Your task to perform on an android device: Go to eBay Image 0: 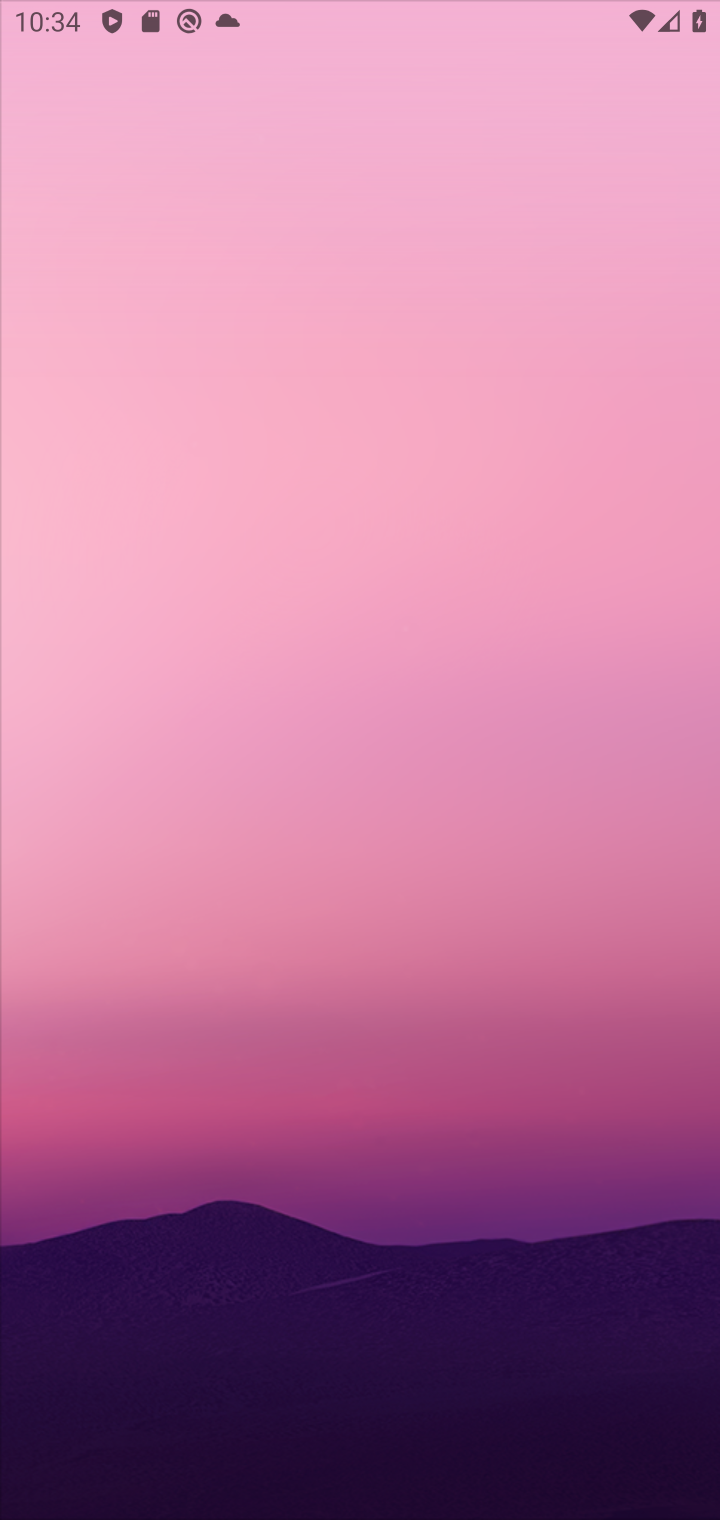
Step 0: press home button
Your task to perform on an android device: Go to eBay Image 1: 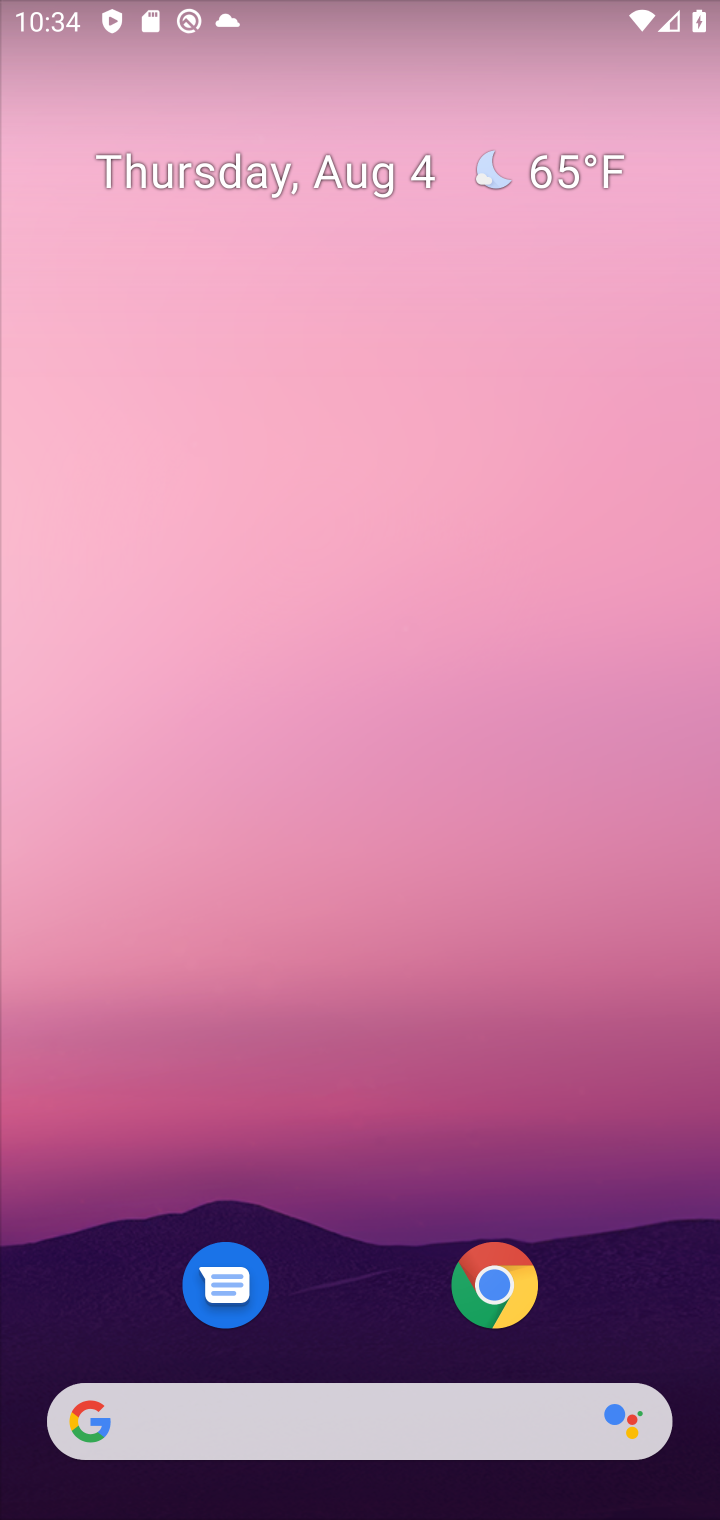
Step 1: drag from (265, 17) to (170, 1470)
Your task to perform on an android device: Go to eBay Image 2: 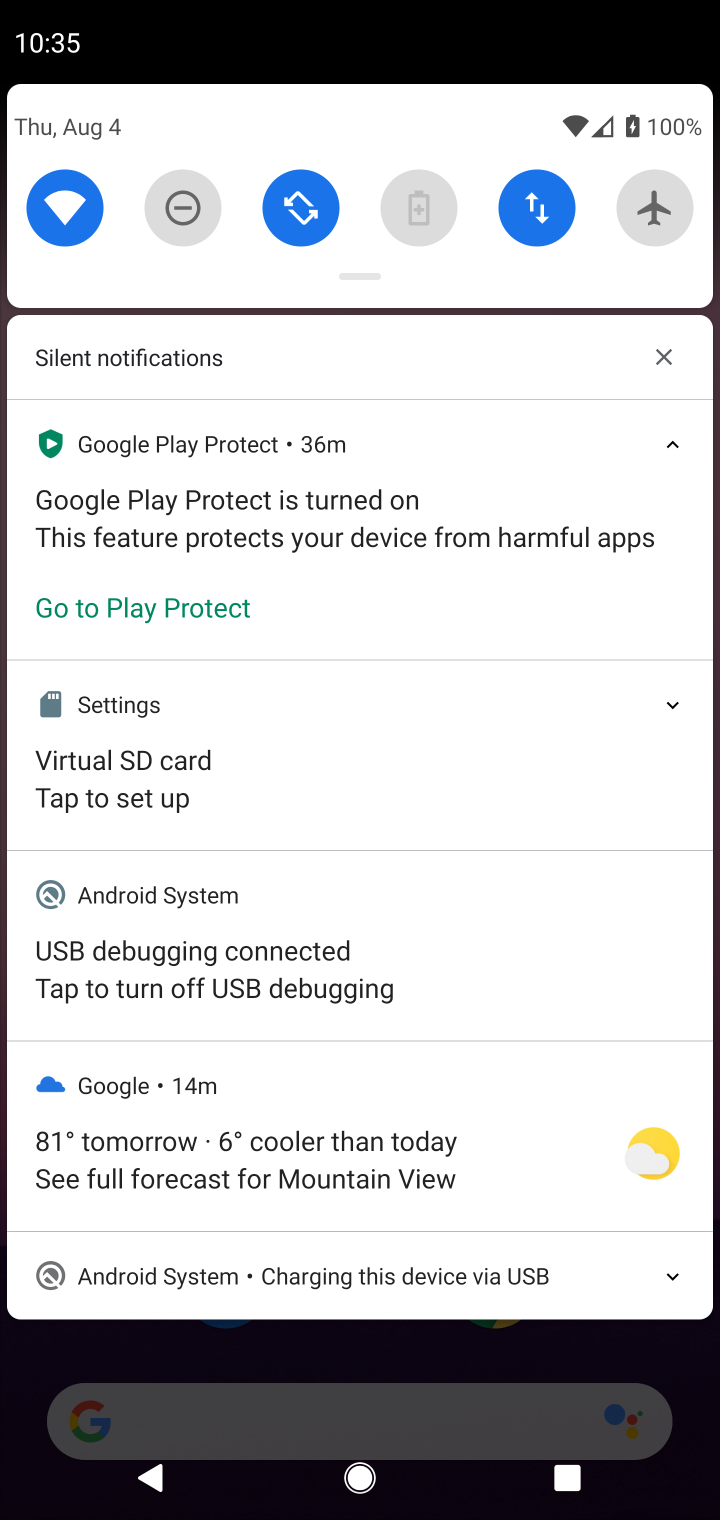
Step 2: click (583, 1313)
Your task to perform on an android device: Go to eBay Image 3: 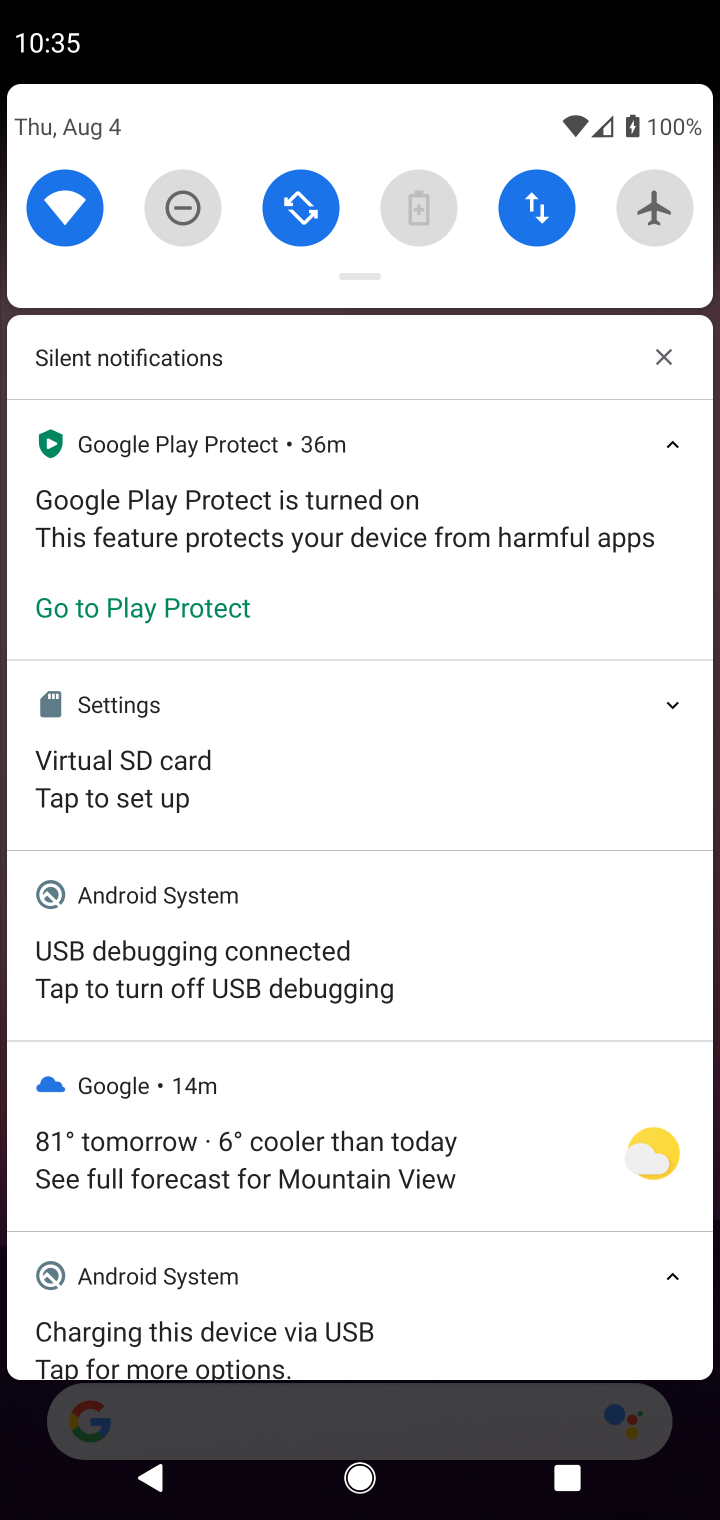
Step 3: click (662, 1397)
Your task to perform on an android device: Go to eBay Image 4: 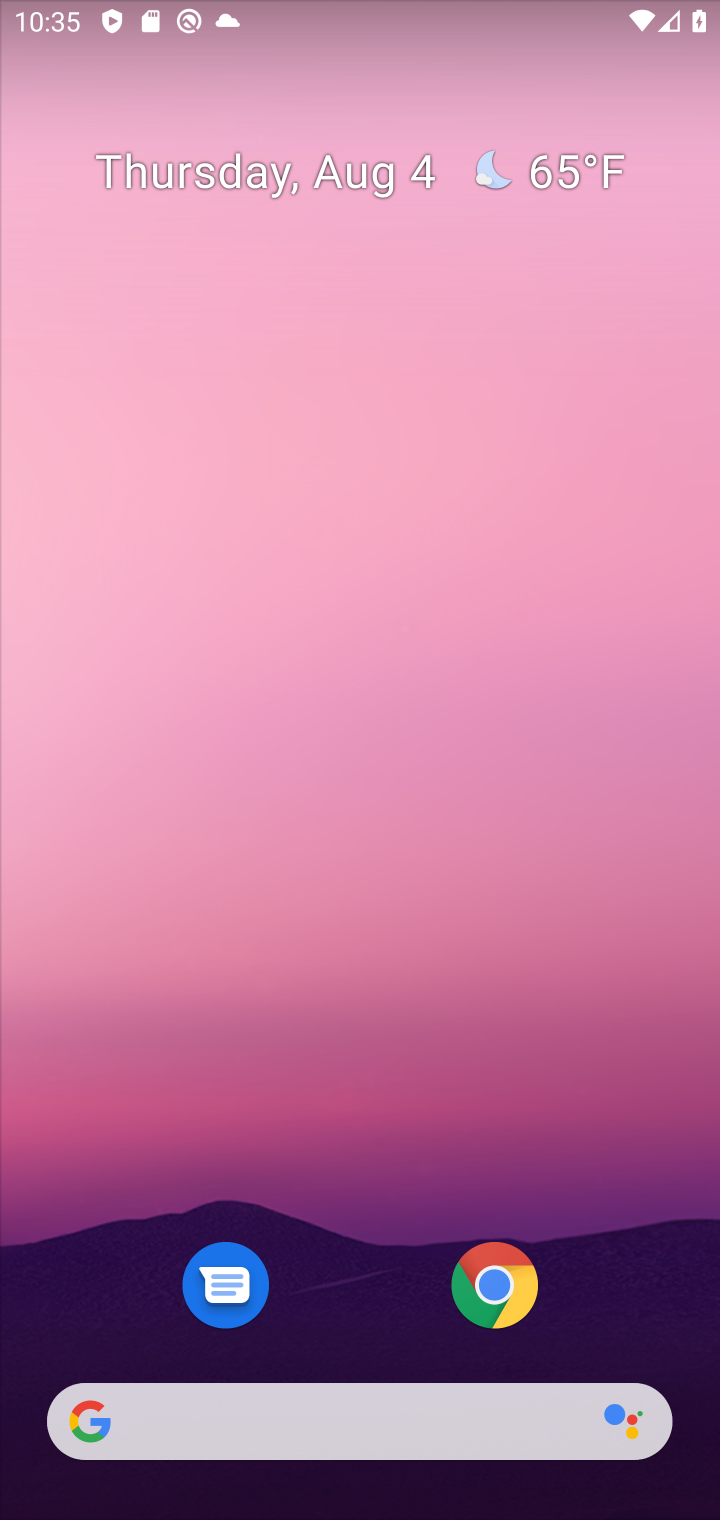
Step 4: drag from (353, 1307) to (438, 35)
Your task to perform on an android device: Go to eBay Image 5: 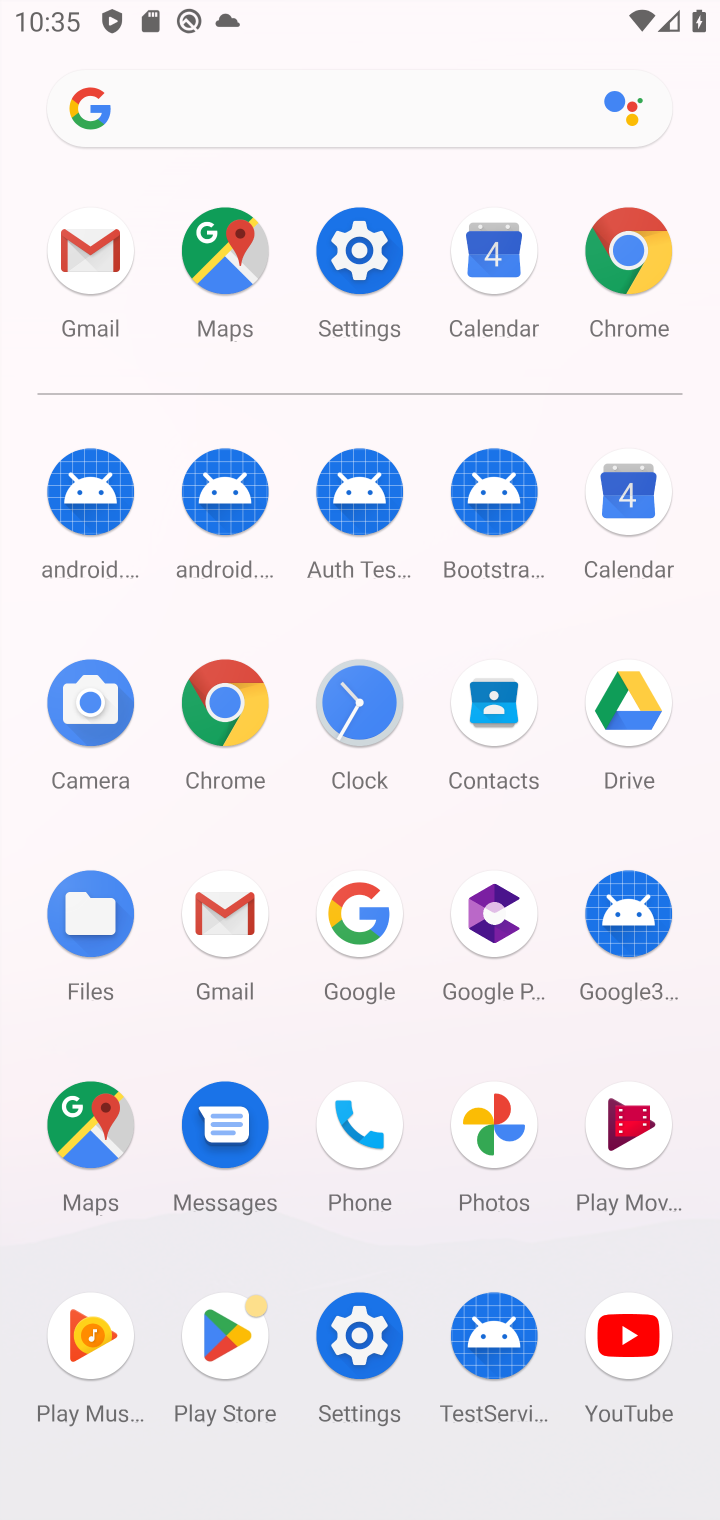
Step 5: click (223, 684)
Your task to perform on an android device: Go to eBay Image 6: 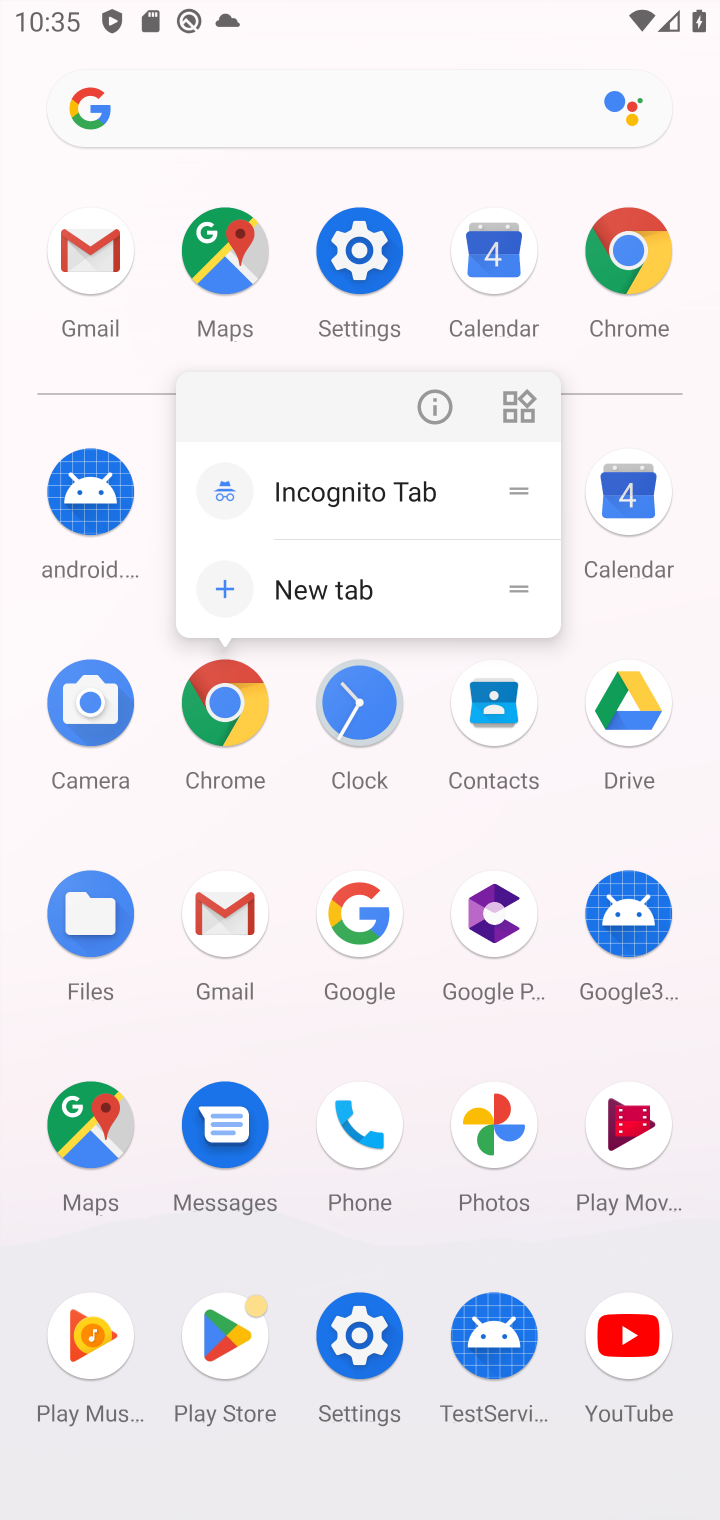
Step 6: click (633, 256)
Your task to perform on an android device: Go to eBay Image 7: 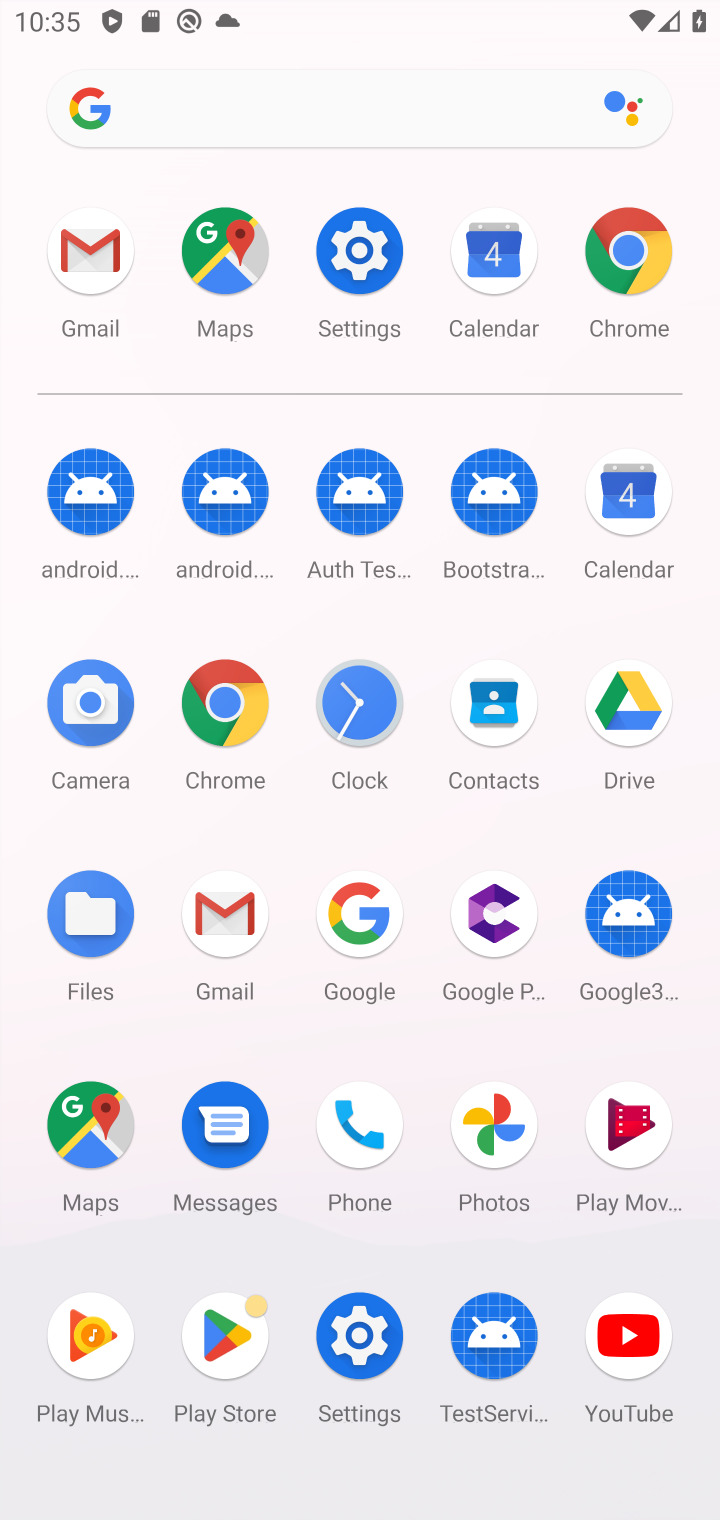
Step 7: click (637, 233)
Your task to perform on an android device: Go to eBay Image 8: 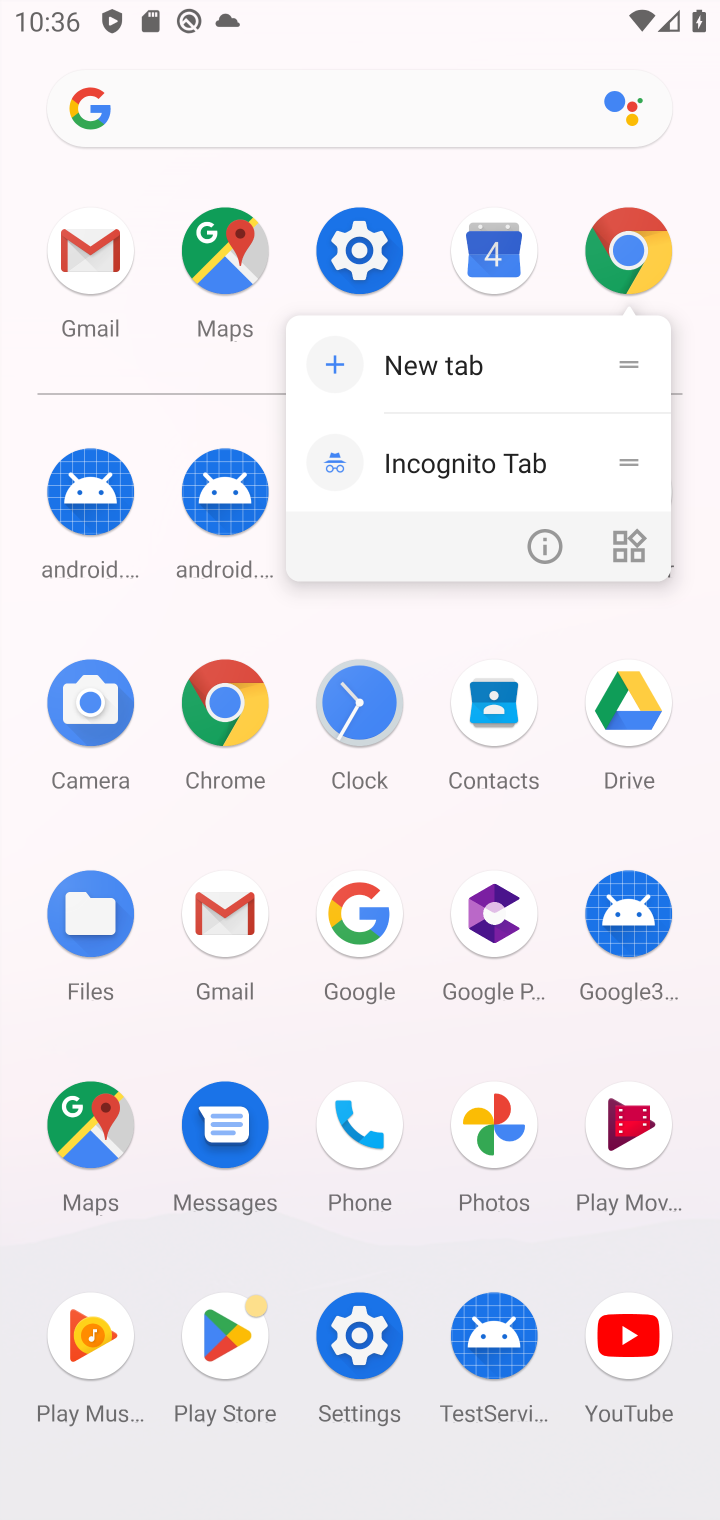
Step 8: click (630, 227)
Your task to perform on an android device: Go to eBay Image 9: 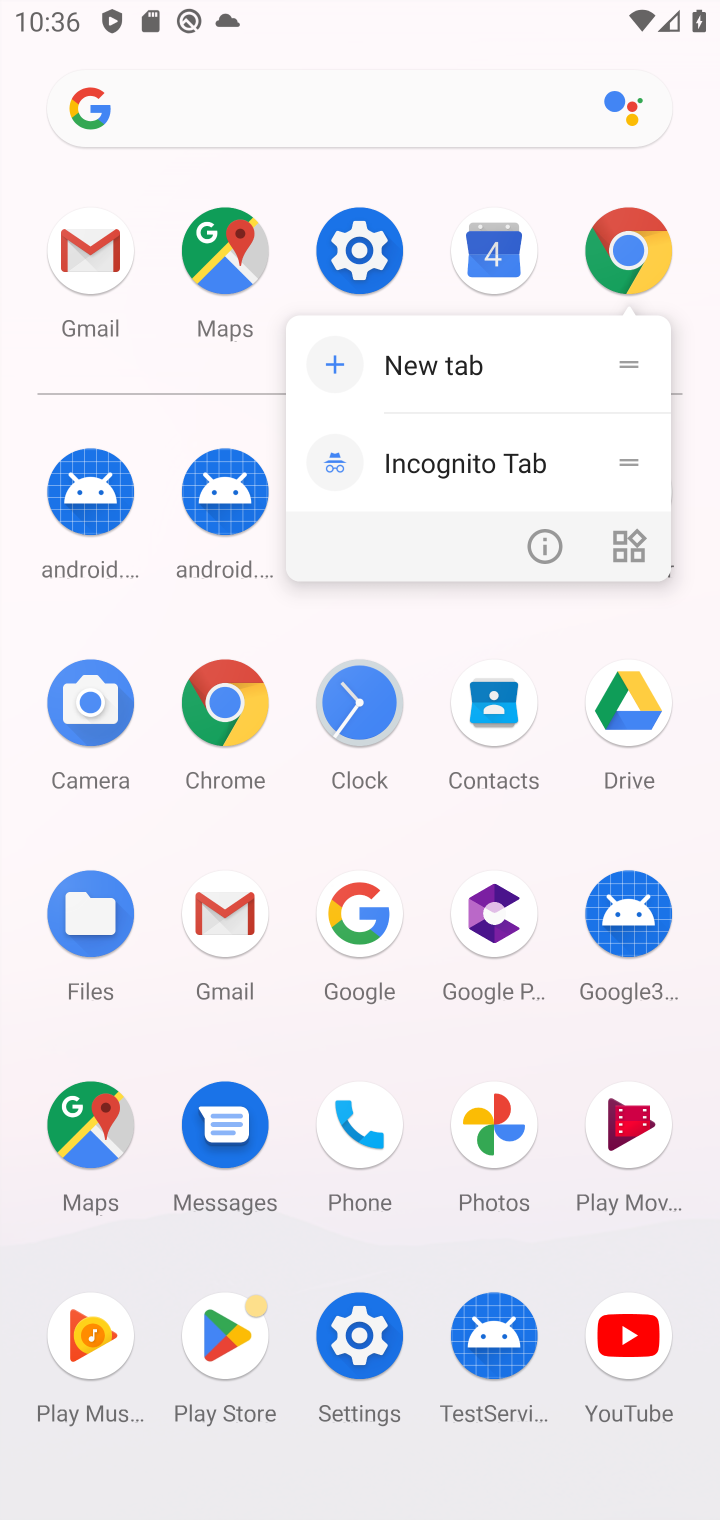
Step 9: click (216, 696)
Your task to perform on an android device: Go to eBay Image 10: 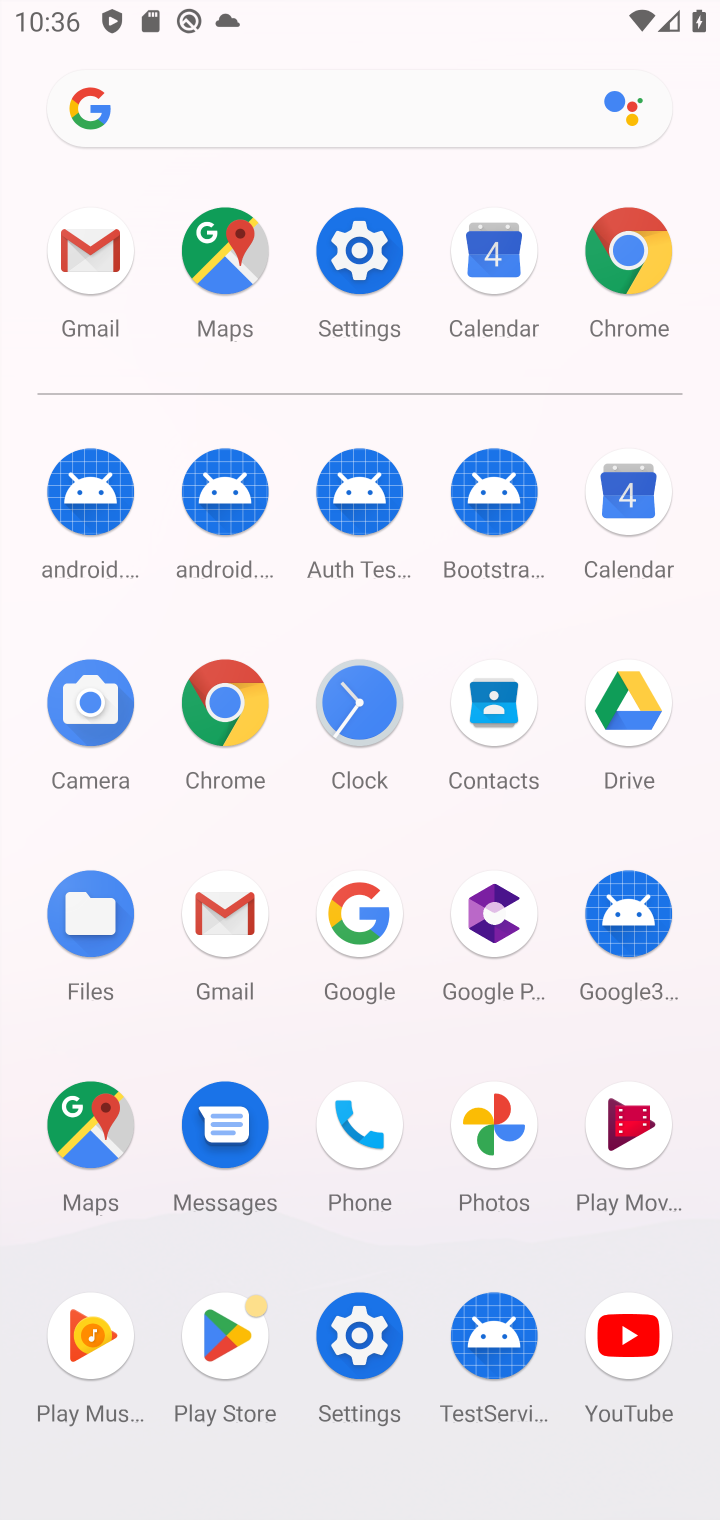
Step 10: click (216, 696)
Your task to perform on an android device: Go to eBay Image 11: 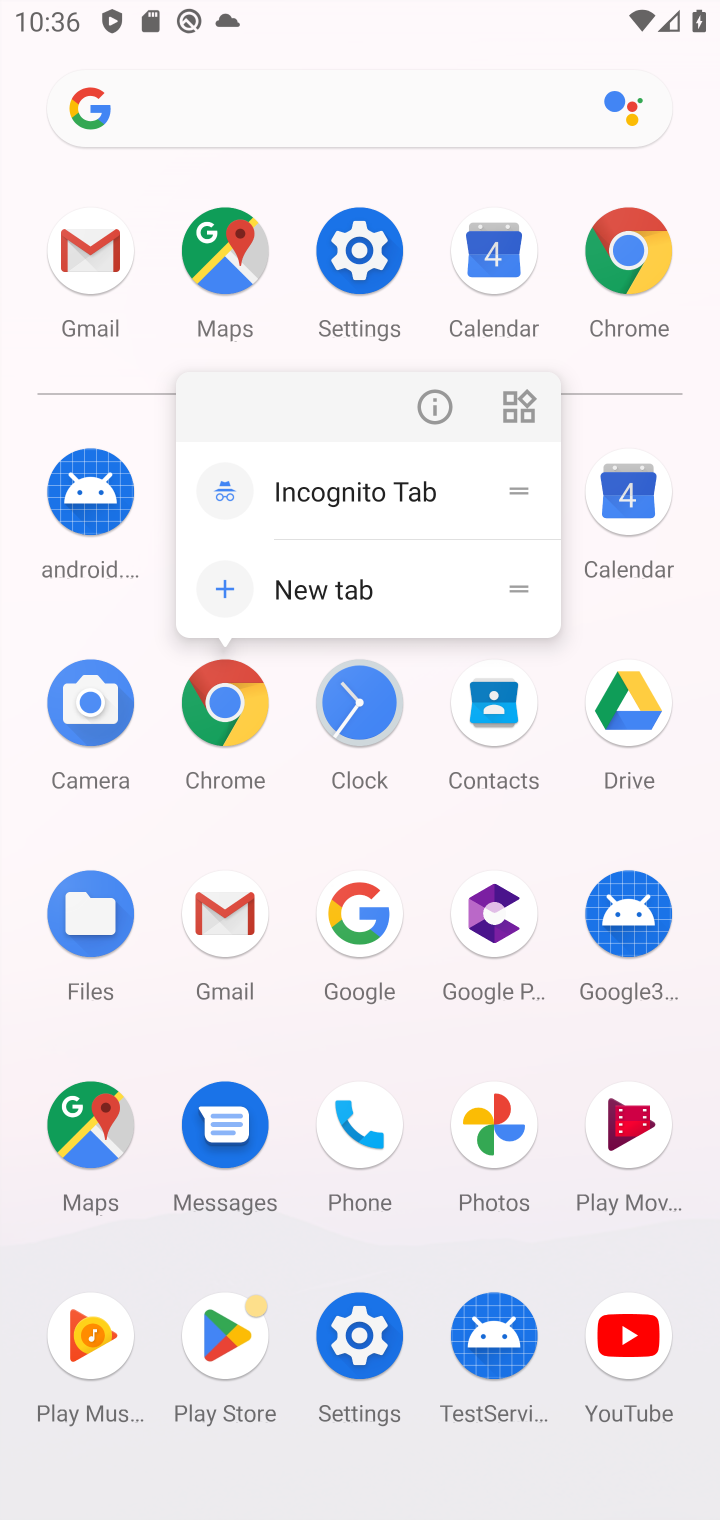
Step 11: click (216, 696)
Your task to perform on an android device: Go to eBay Image 12: 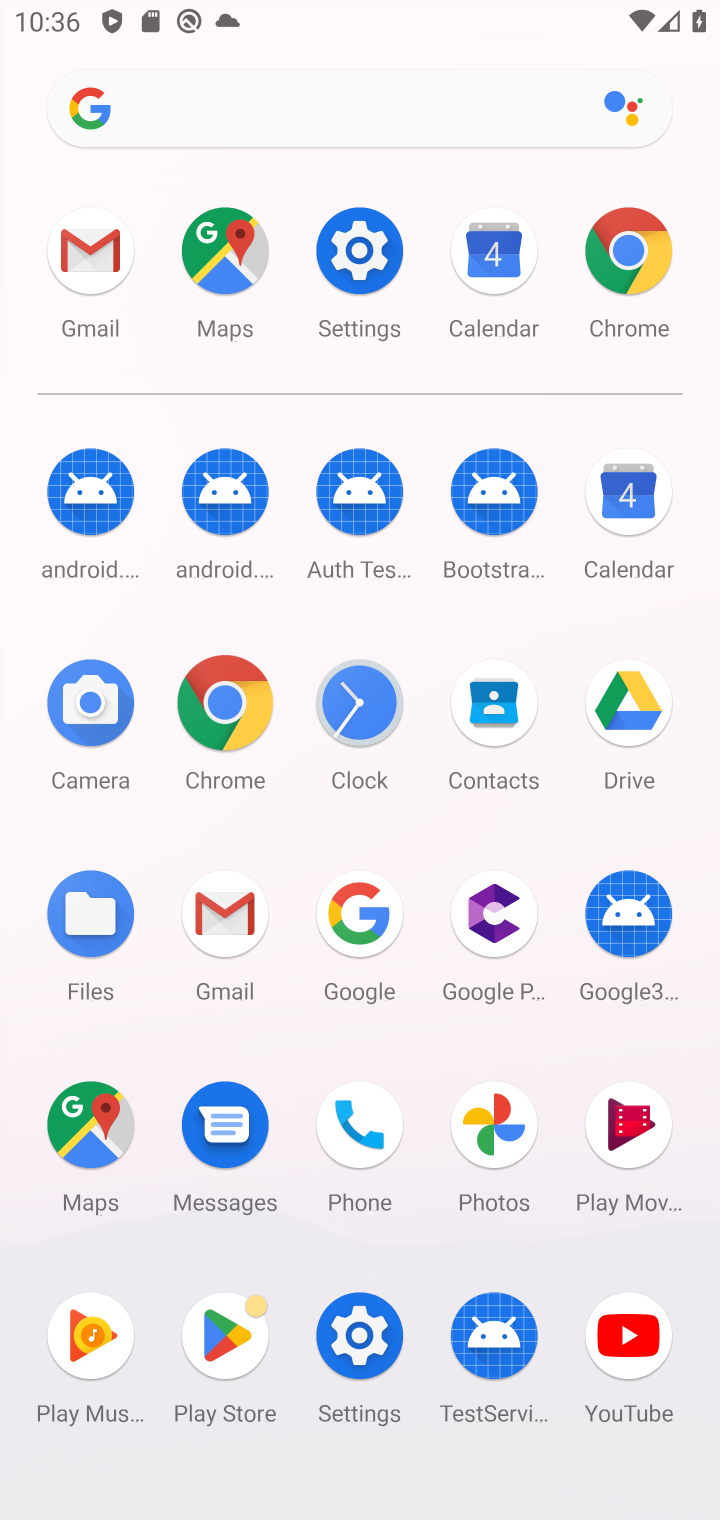
Step 12: click (249, 706)
Your task to perform on an android device: Go to eBay Image 13: 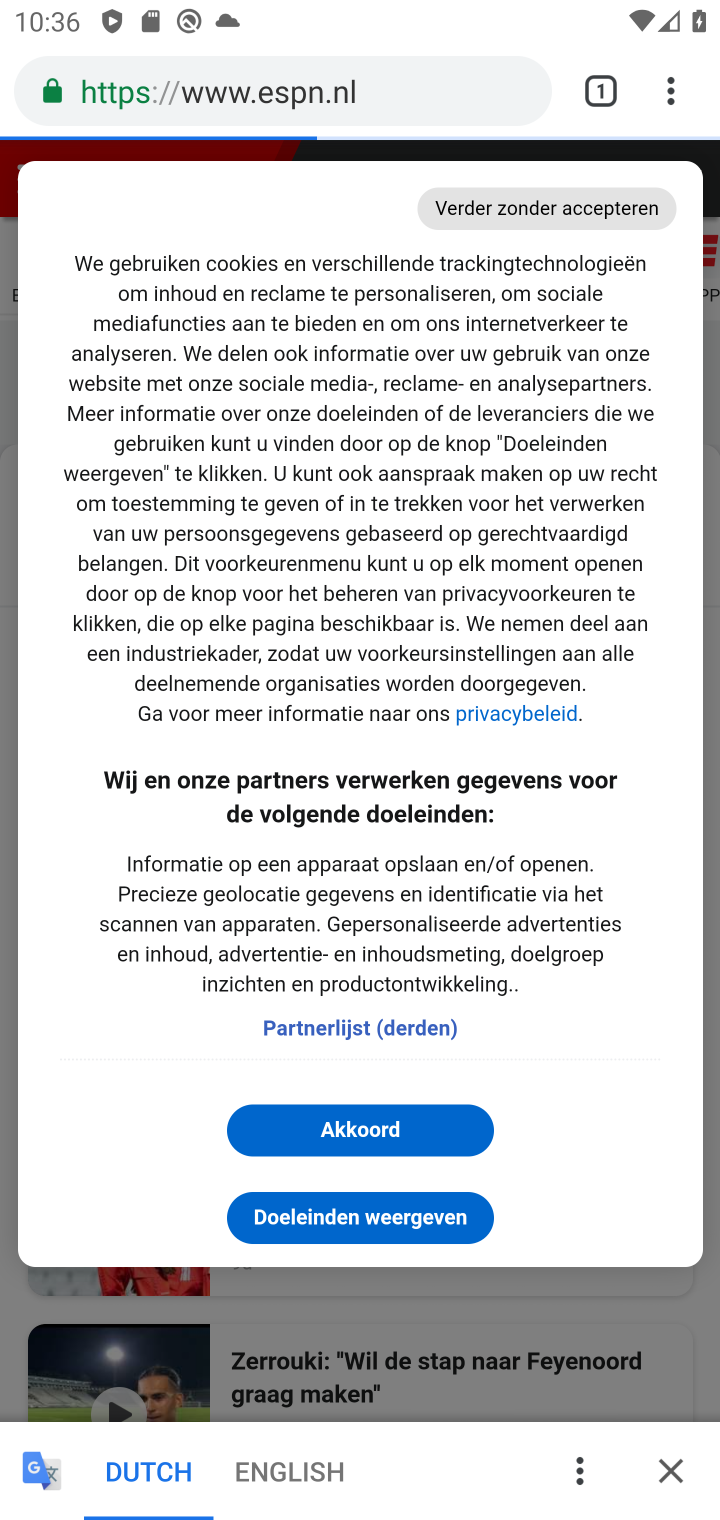
Step 13: click (254, 67)
Your task to perform on an android device: Go to eBay Image 14: 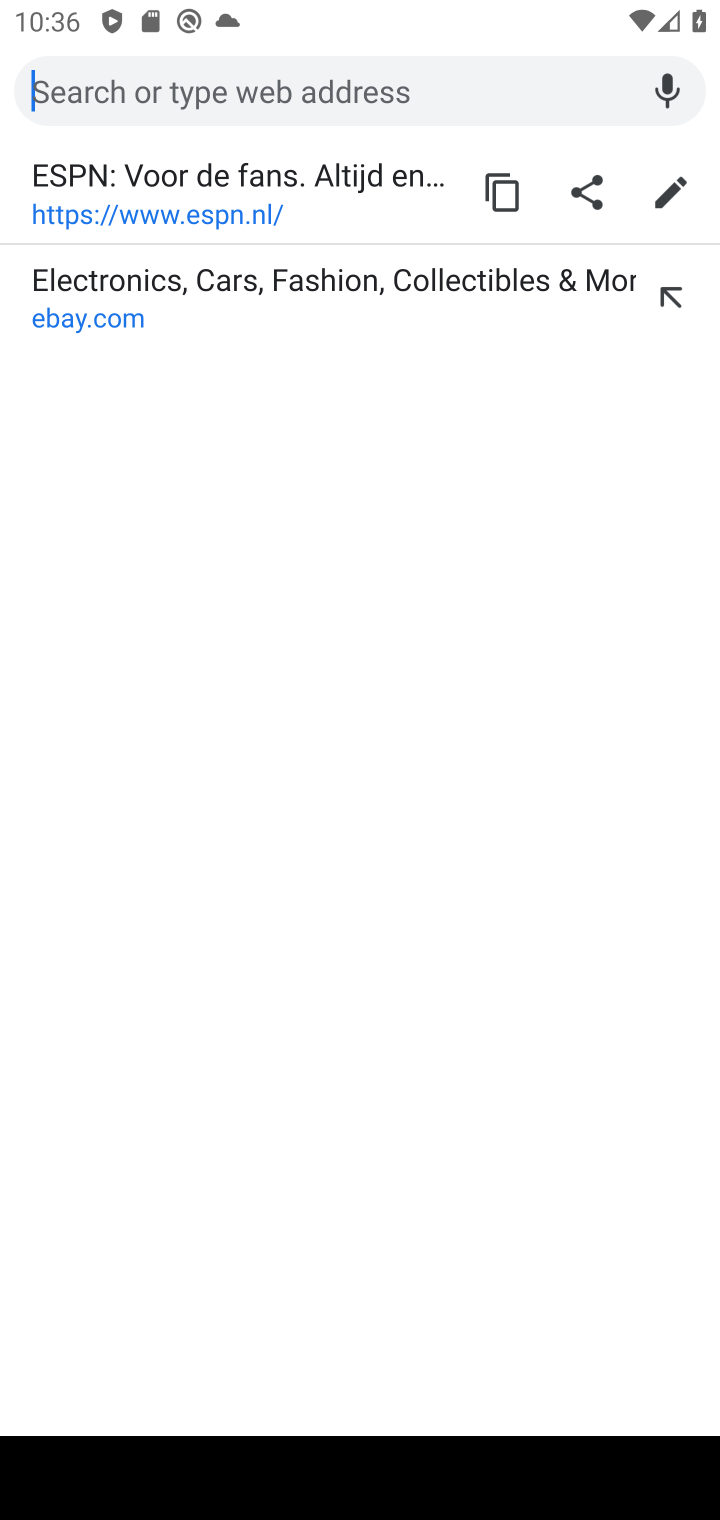
Step 14: type "eBay"
Your task to perform on an android device: Go to eBay Image 15: 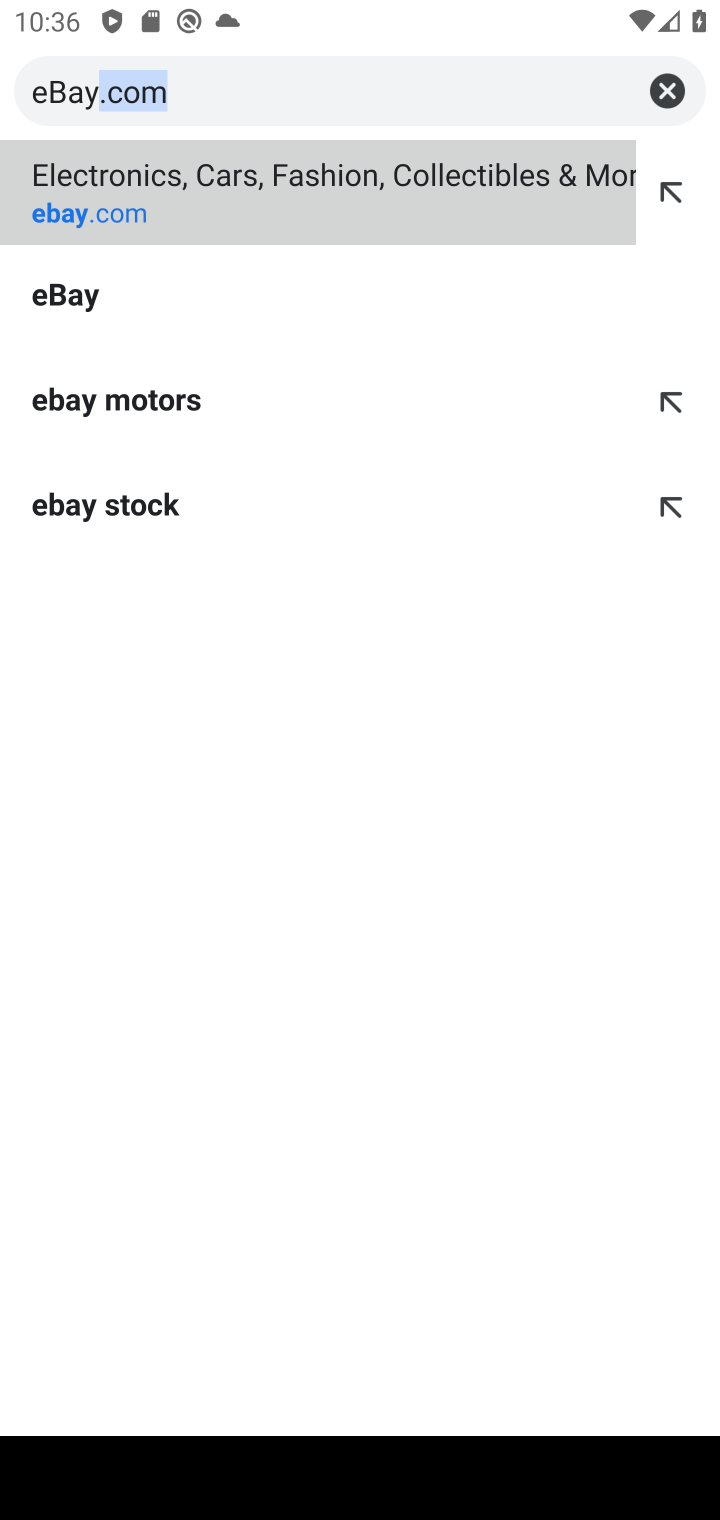
Step 15: click (63, 201)
Your task to perform on an android device: Go to eBay Image 16: 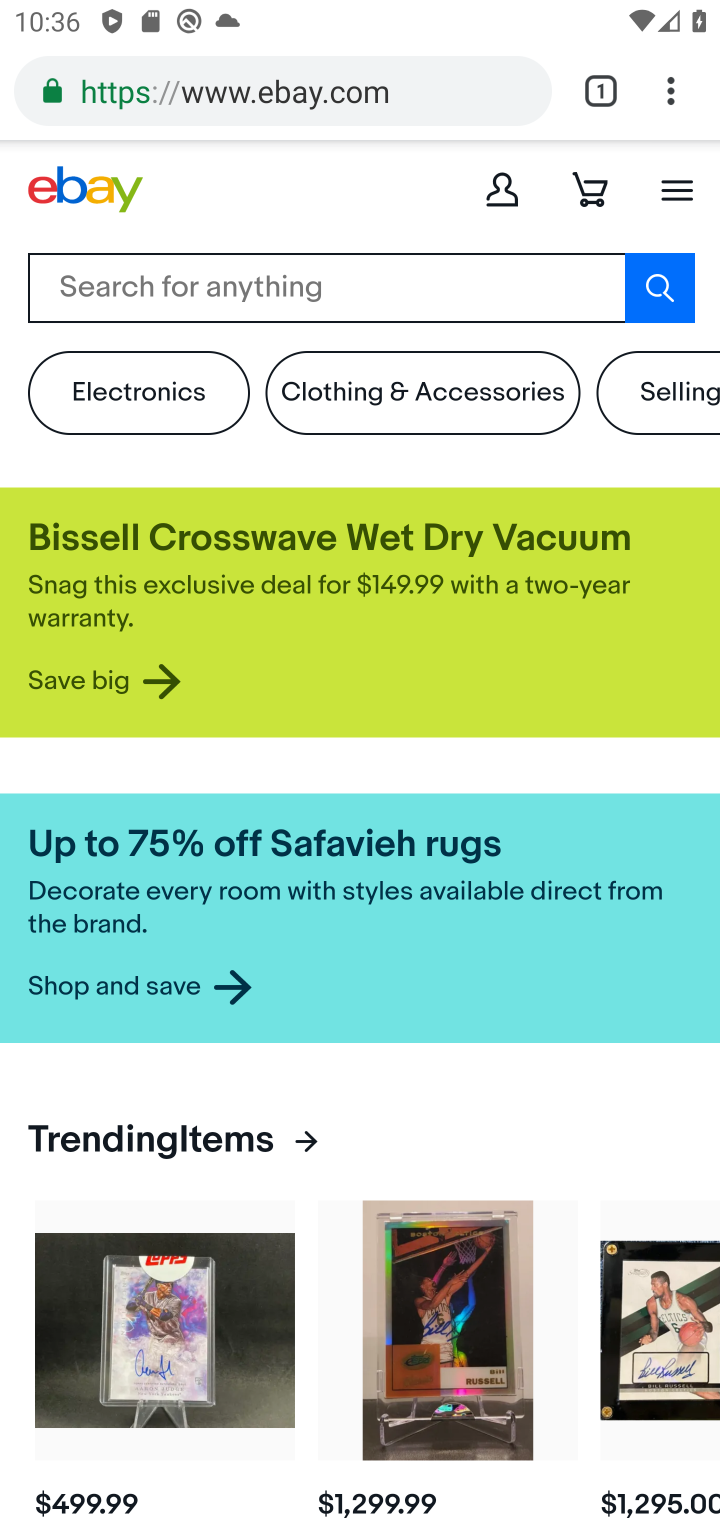
Step 16: task complete